Your task to perform on an android device: Search for Italian restaurants on Maps Image 0: 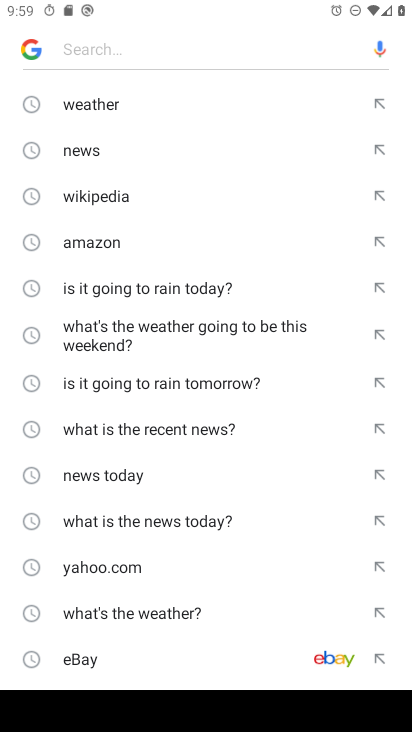
Step 0: press home button
Your task to perform on an android device: Search for Italian restaurants on Maps Image 1: 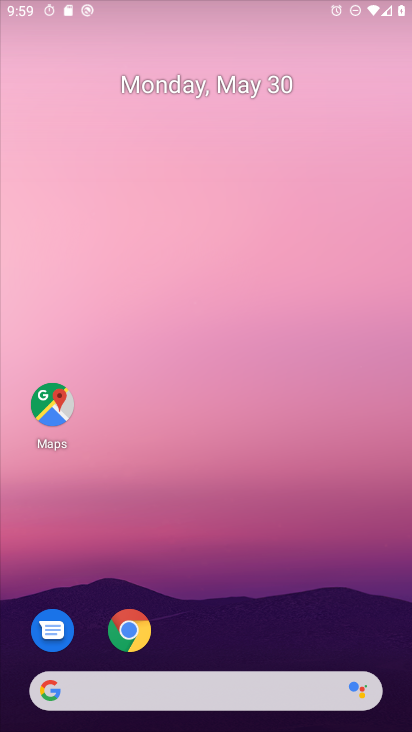
Step 1: drag from (364, 650) to (278, 21)
Your task to perform on an android device: Search for Italian restaurants on Maps Image 2: 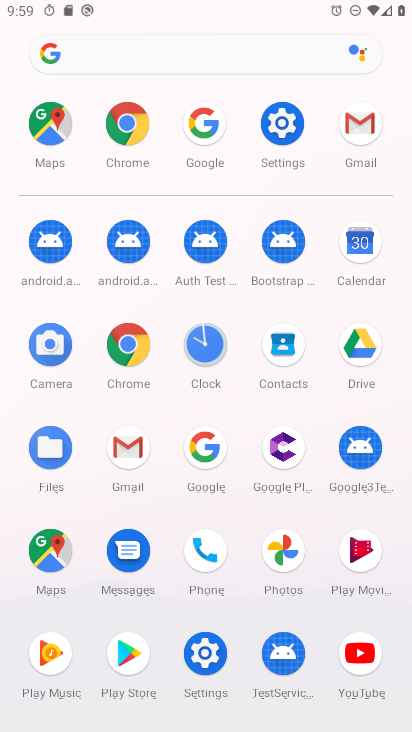
Step 2: click (59, 548)
Your task to perform on an android device: Search for Italian restaurants on Maps Image 3: 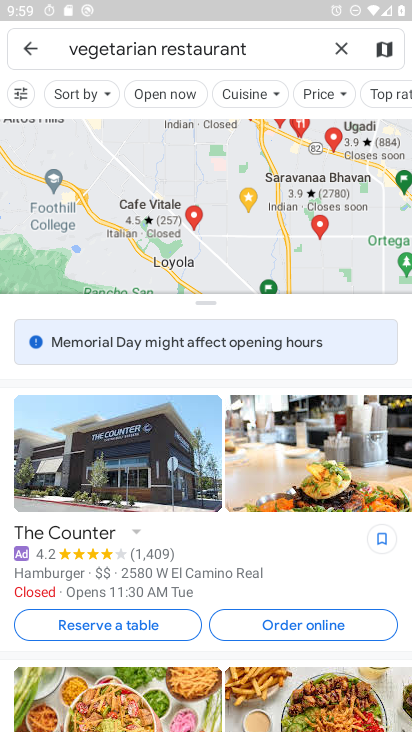
Step 3: click (342, 49)
Your task to perform on an android device: Search for Italian restaurants on Maps Image 4: 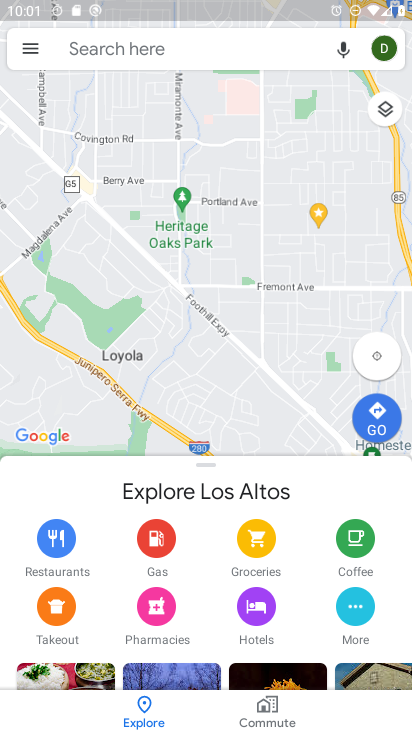
Step 4: click (213, 41)
Your task to perform on an android device: Search for Italian restaurants on Maps Image 5: 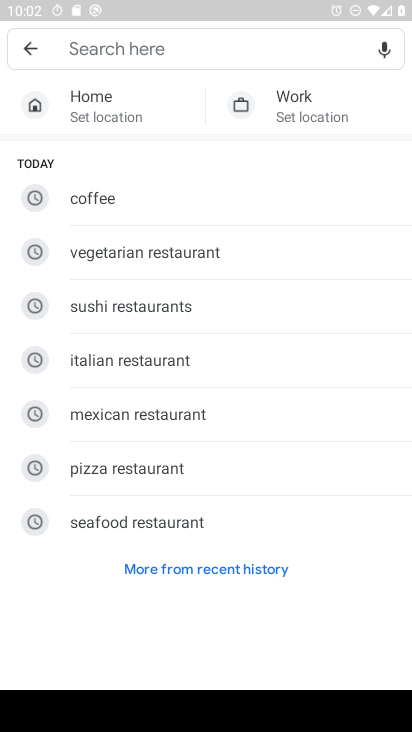
Step 5: click (132, 361)
Your task to perform on an android device: Search for Italian restaurants on Maps Image 6: 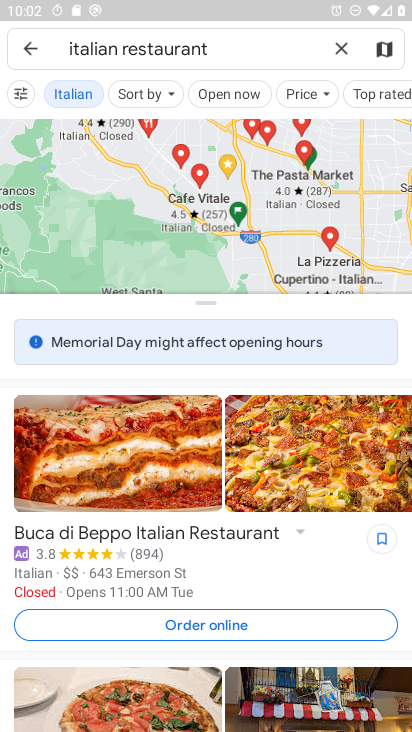
Step 6: task complete